Your task to perform on an android device: check battery use Image 0: 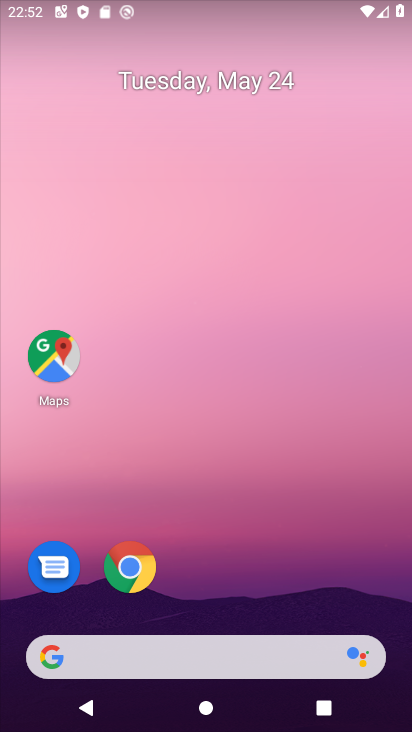
Step 0: drag from (287, 575) to (209, 64)
Your task to perform on an android device: check battery use Image 1: 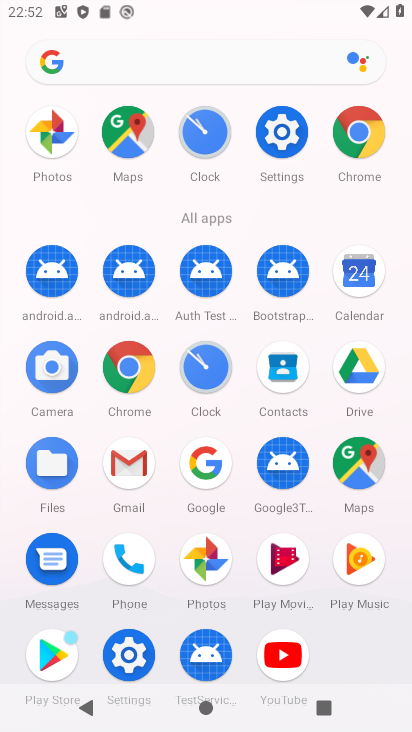
Step 1: click (284, 137)
Your task to perform on an android device: check battery use Image 2: 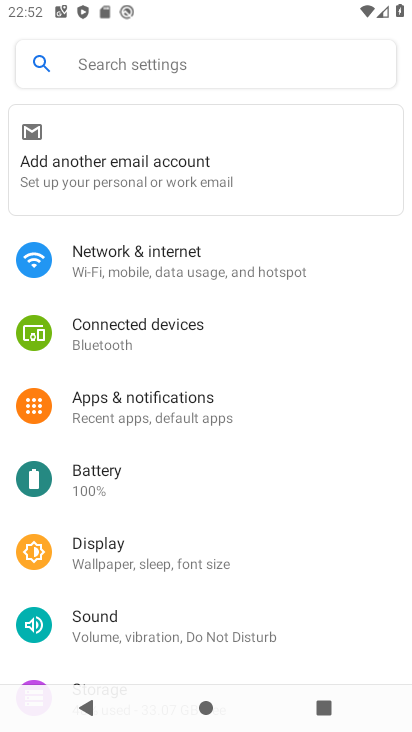
Step 2: click (178, 477)
Your task to perform on an android device: check battery use Image 3: 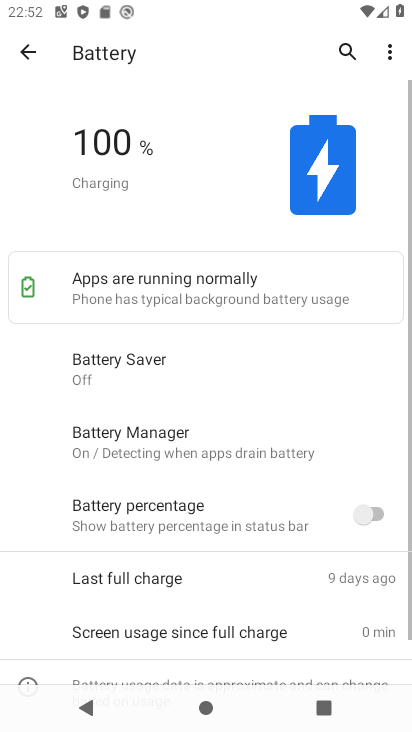
Step 3: click (385, 41)
Your task to perform on an android device: check battery use Image 4: 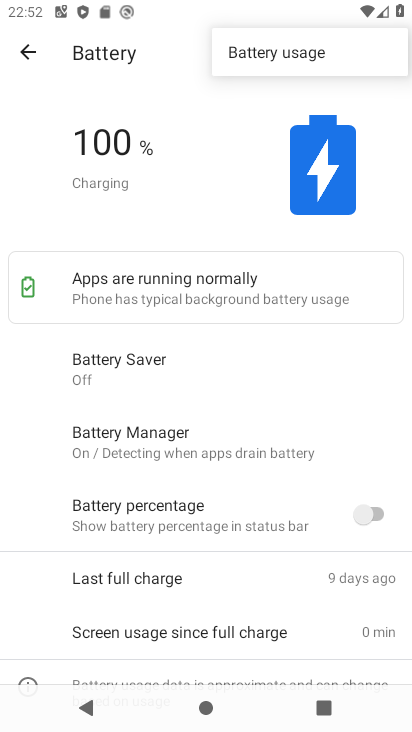
Step 4: click (362, 50)
Your task to perform on an android device: check battery use Image 5: 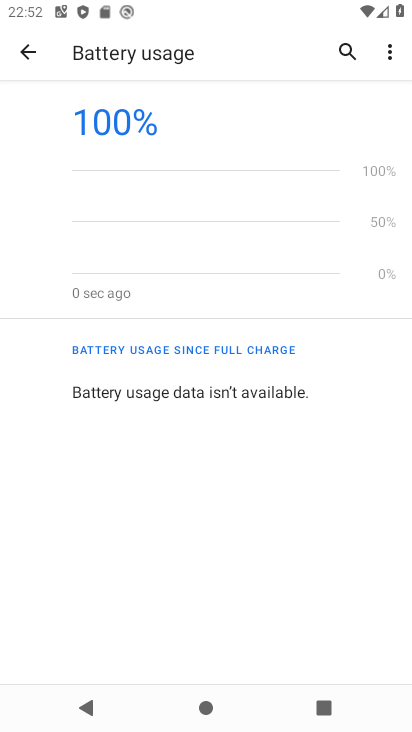
Step 5: task complete